Your task to perform on an android device: What is the recent news? Image 0: 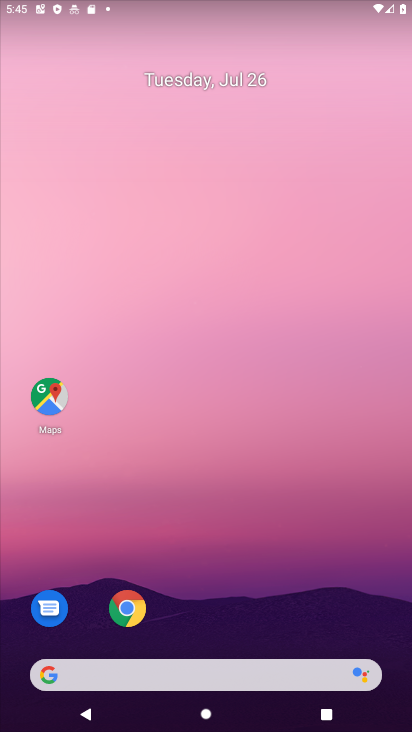
Step 0: press home button
Your task to perform on an android device: What is the recent news? Image 1: 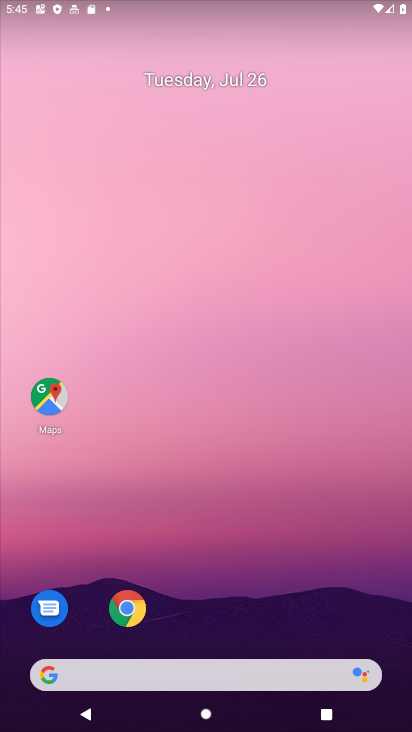
Step 1: click (42, 680)
Your task to perform on an android device: What is the recent news? Image 2: 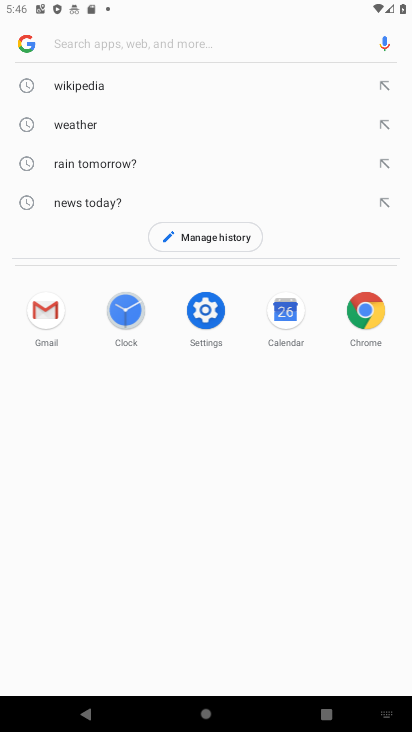
Step 2: type "recent news?"
Your task to perform on an android device: What is the recent news? Image 3: 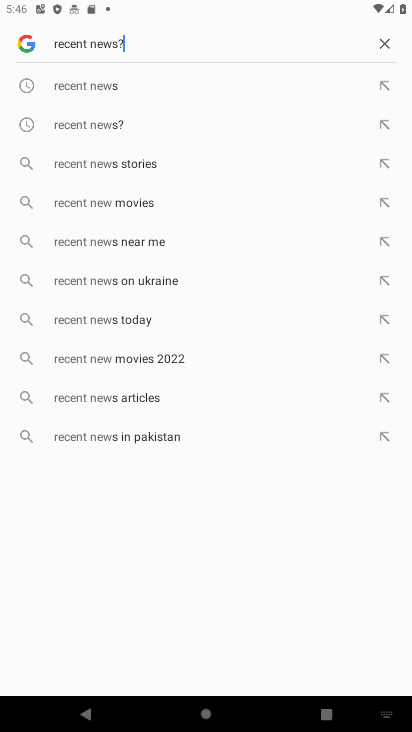
Step 3: press enter
Your task to perform on an android device: What is the recent news? Image 4: 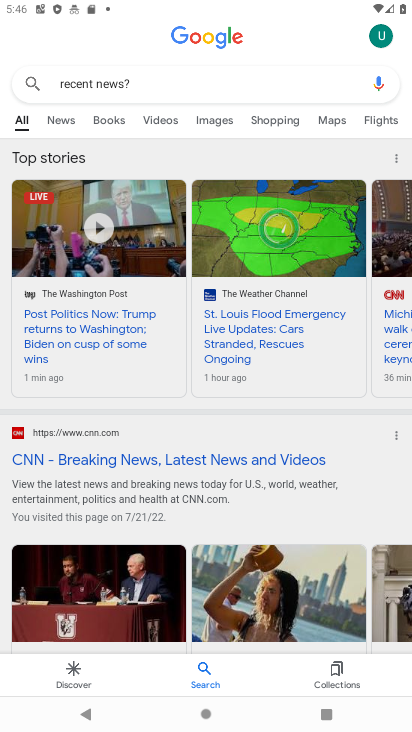
Step 4: task complete